Your task to perform on an android device: toggle sleep mode Image 0: 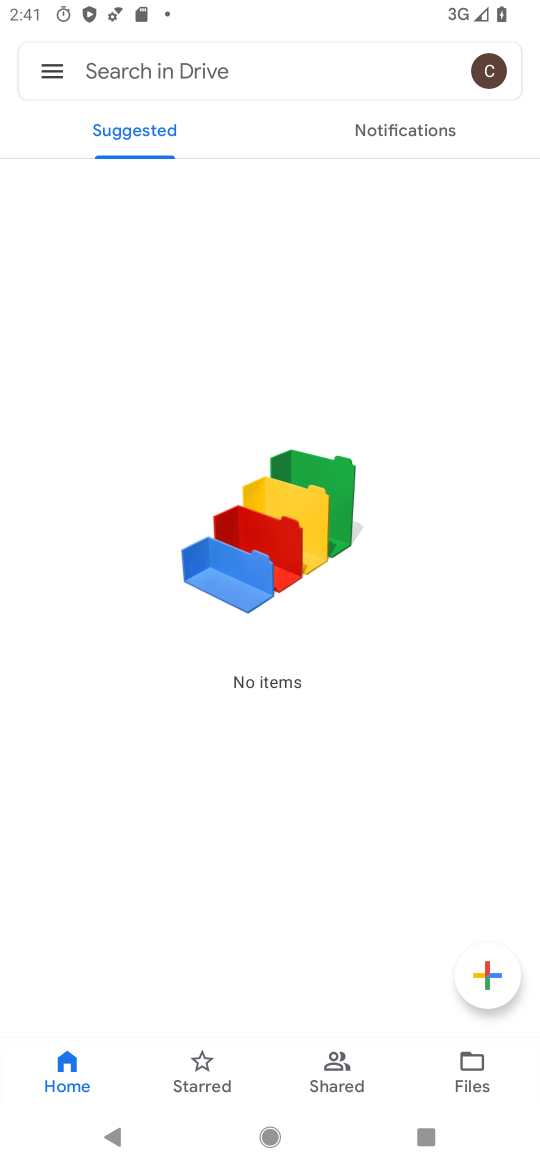
Step 0: press home button
Your task to perform on an android device: toggle sleep mode Image 1: 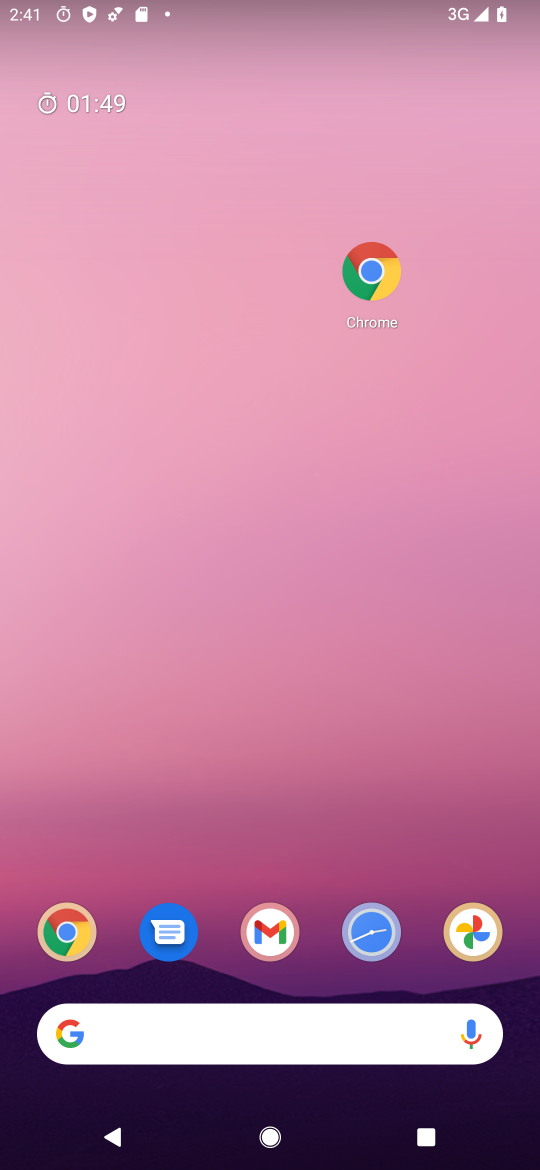
Step 1: drag from (326, 964) to (475, 36)
Your task to perform on an android device: toggle sleep mode Image 2: 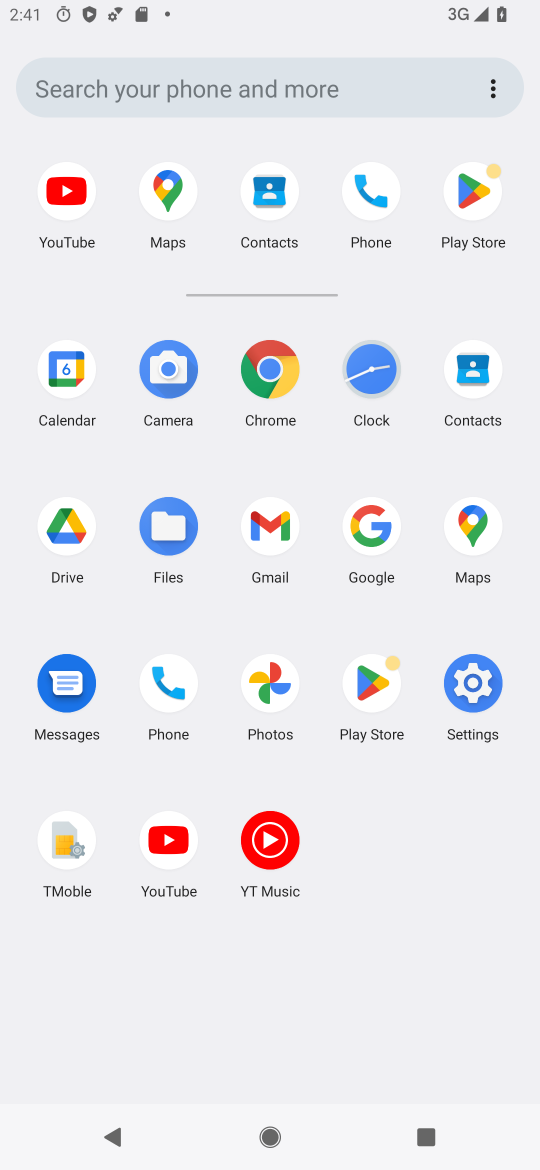
Step 2: click (475, 688)
Your task to perform on an android device: toggle sleep mode Image 3: 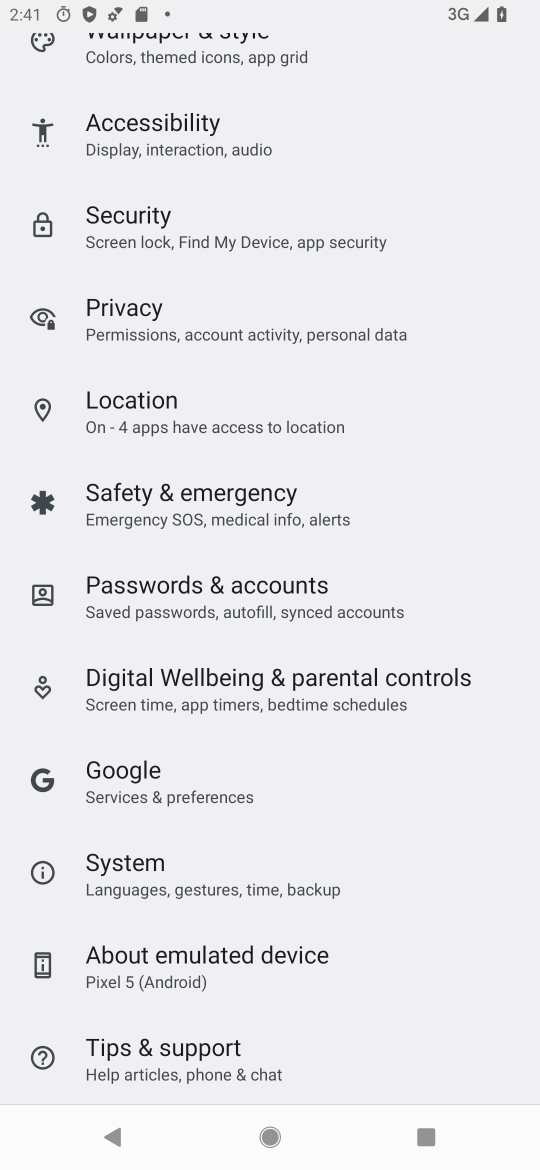
Step 3: drag from (208, 867) to (269, 917)
Your task to perform on an android device: toggle sleep mode Image 4: 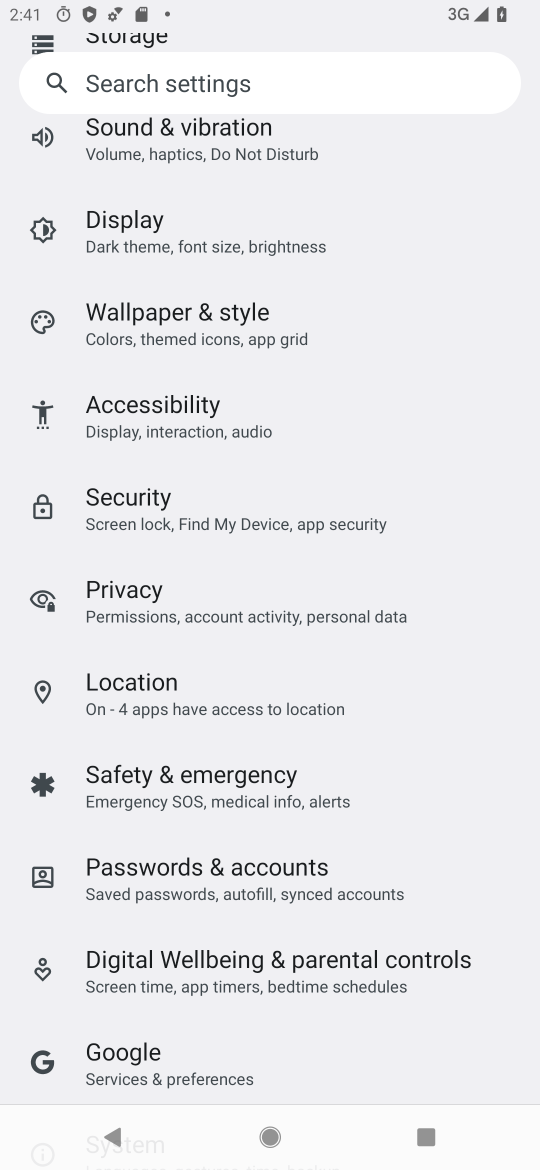
Step 4: click (139, 236)
Your task to perform on an android device: toggle sleep mode Image 5: 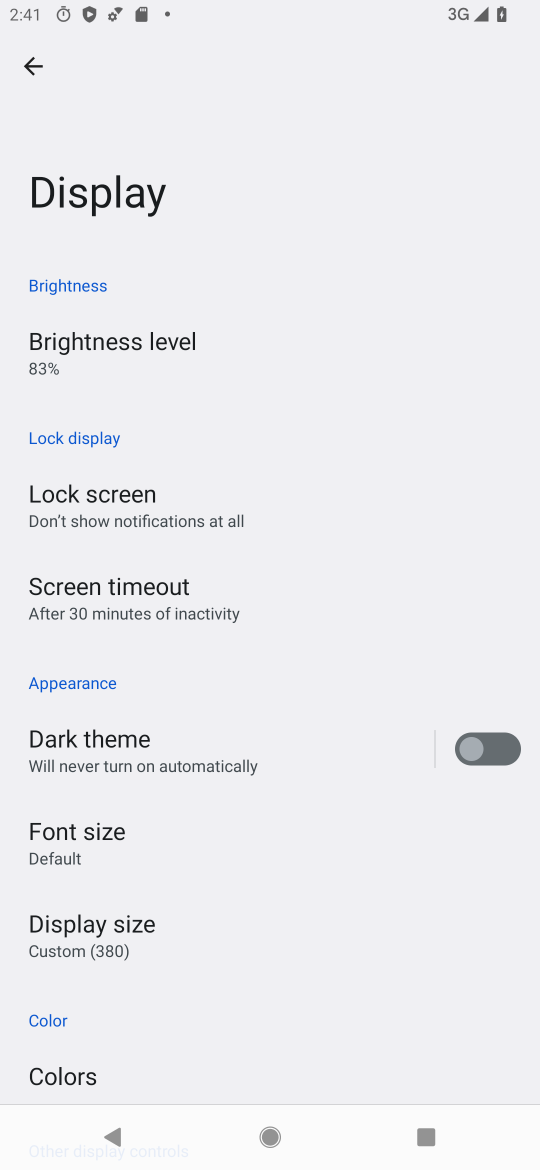
Step 5: click (94, 594)
Your task to perform on an android device: toggle sleep mode Image 6: 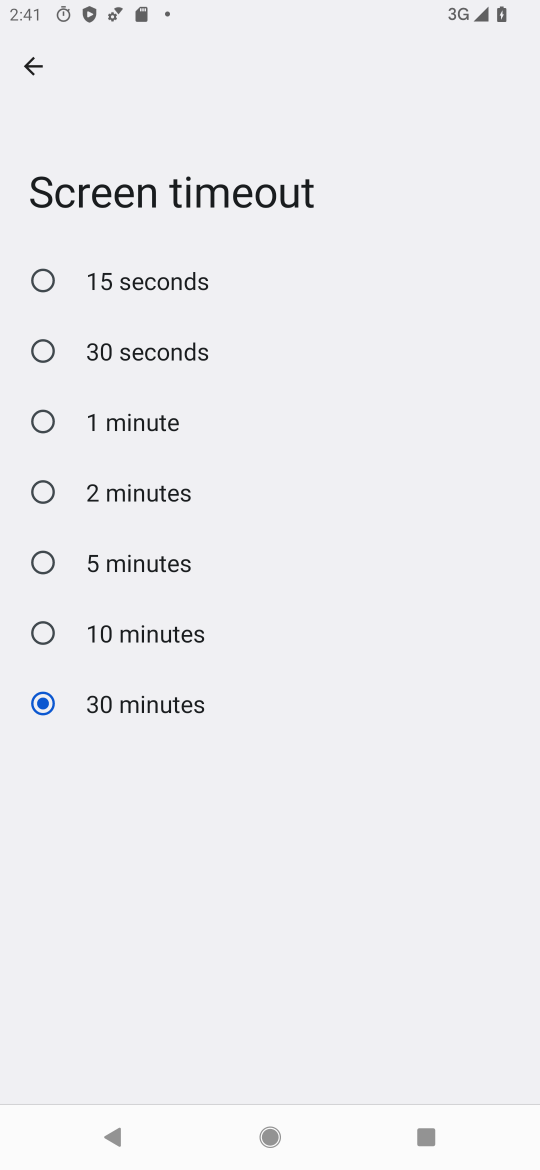
Step 6: click (91, 630)
Your task to perform on an android device: toggle sleep mode Image 7: 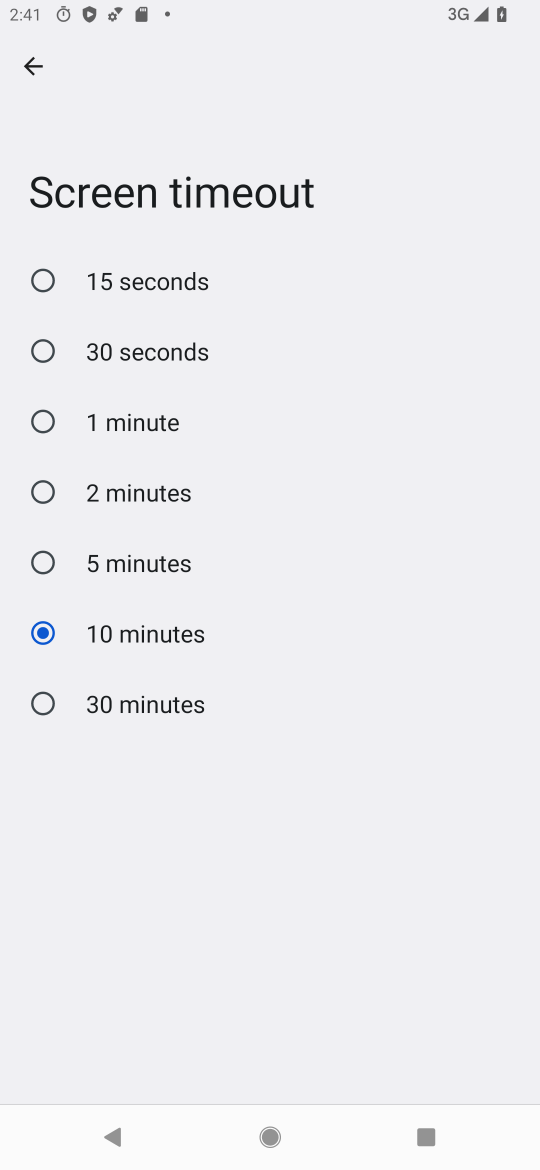
Step 7: task complete